Your task to perform on an android device: Add "razer blackwidow" to the cart on costco.com, then select checkout. Image 0: 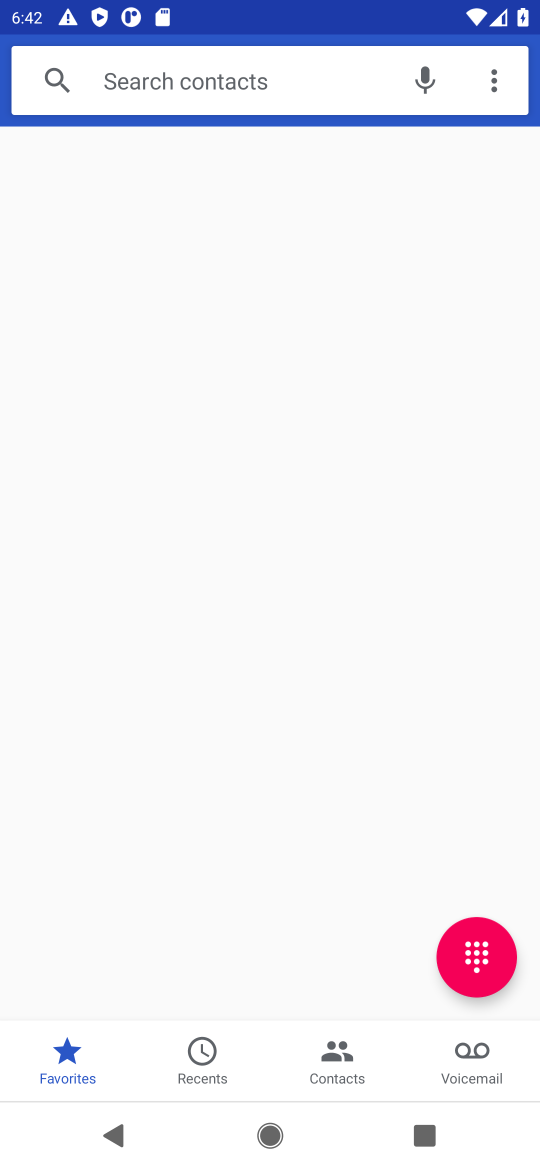
Step 0: press home button
Your task to perform on an android device: Add "razer blackwidow" to the cart on costco.com, then select checkout. Image 1: 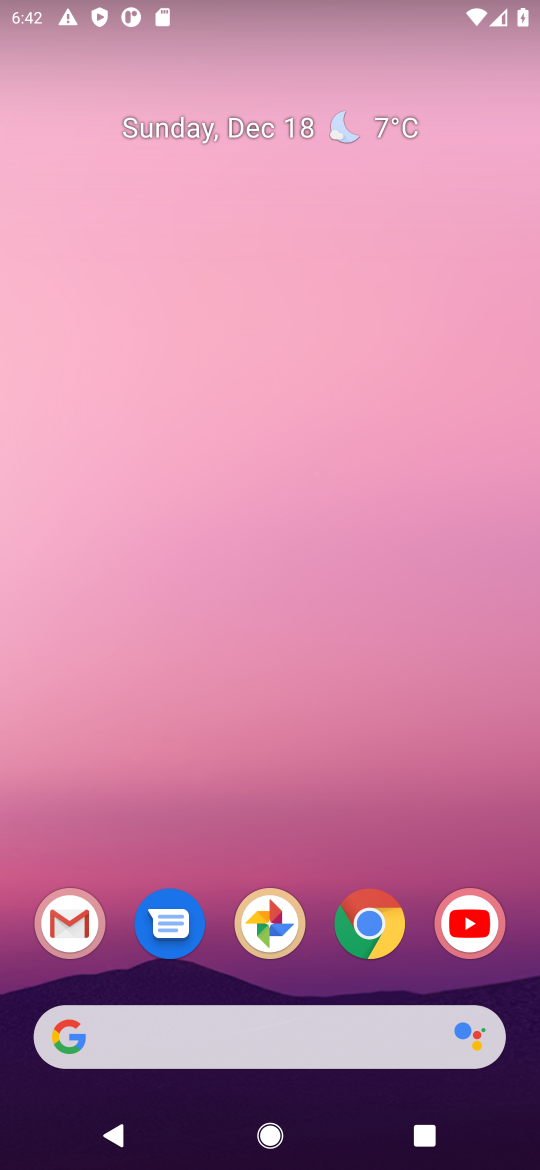
Step 1: click (112, 1036)
Your task to perform on an android device: Add "razer blackwidow" to the cart on costco.com, then select checkout. Image 2: 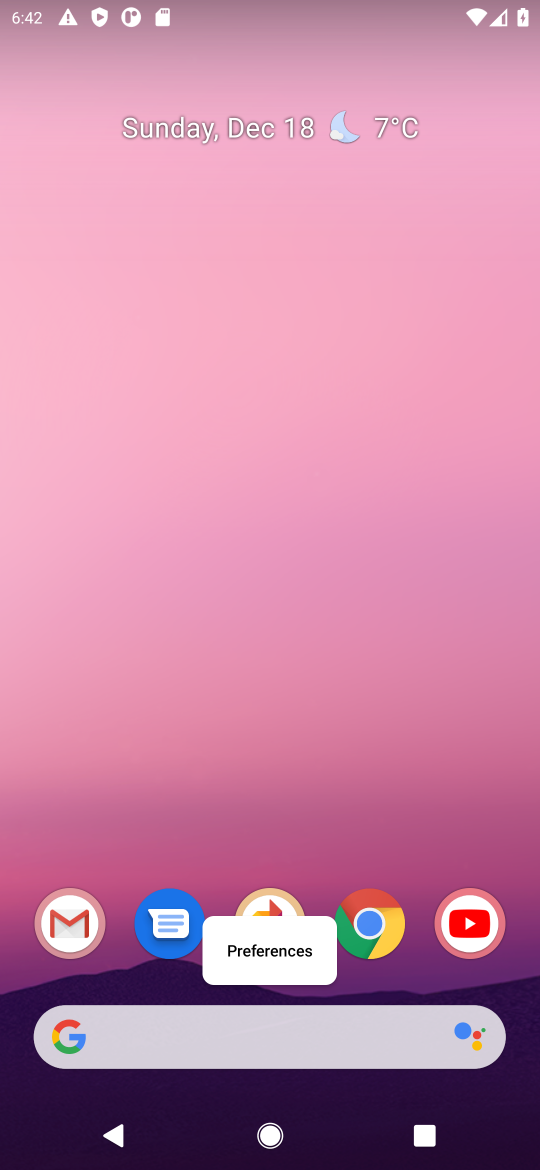
Step 2: click (90, 1035)
Your task to perform on an android device: Add "razer blackwidow" to the cart on costco.com, then select checkout. Image 3: 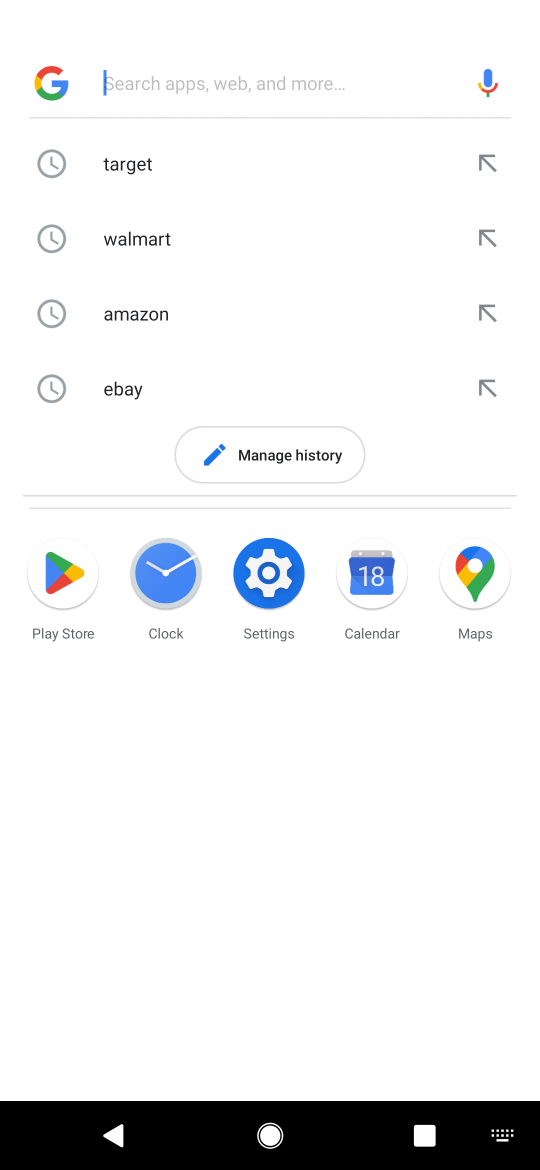
Step 3: type "costco.com"
Your task to perform on an android device: Add "razer blackwidow" to the cart on costco.com, then select checkout. Image 4: 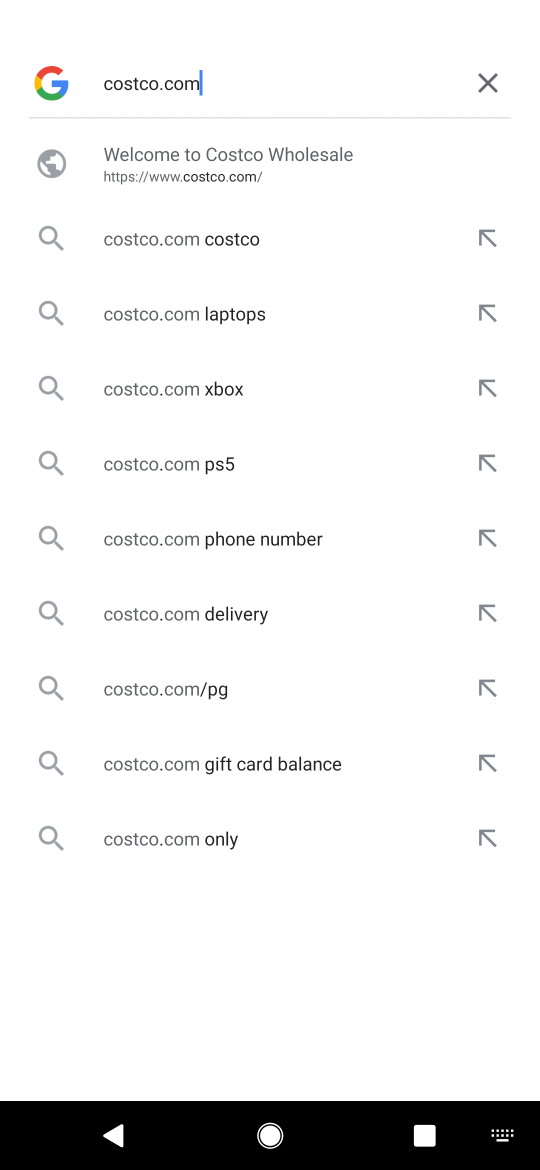
Step 4: press enter
Your task to perform on an android device: Add "razer blackwidow" to the cart on costco.com, then select checkout. Image 5: 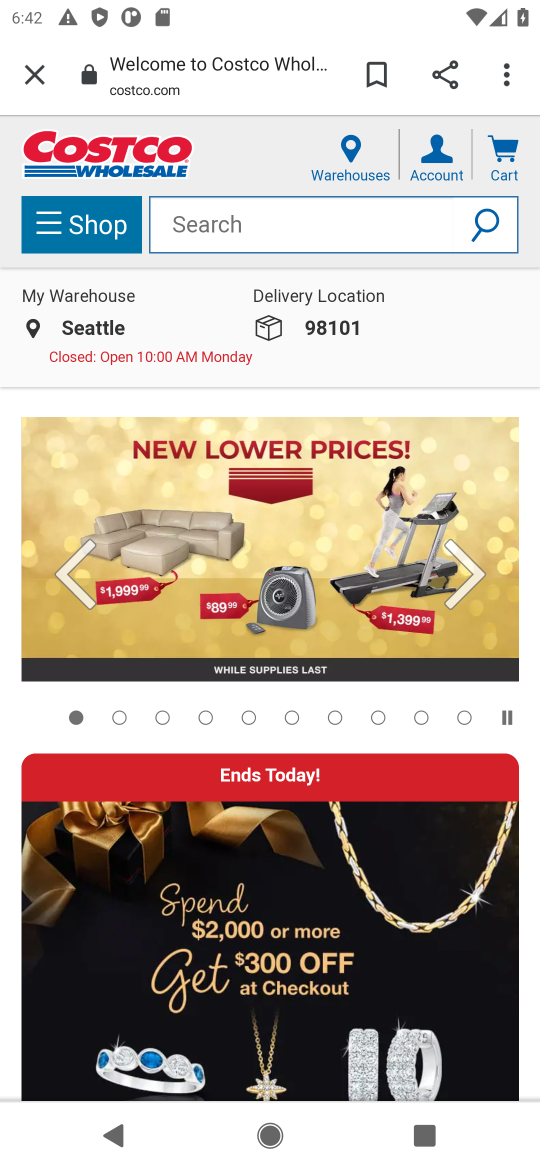
Step 5: click (237, 221)
Your task to perform on an android device: Add "razer blackwidow" to the cart on costco.com, then select checkout. Image 6: 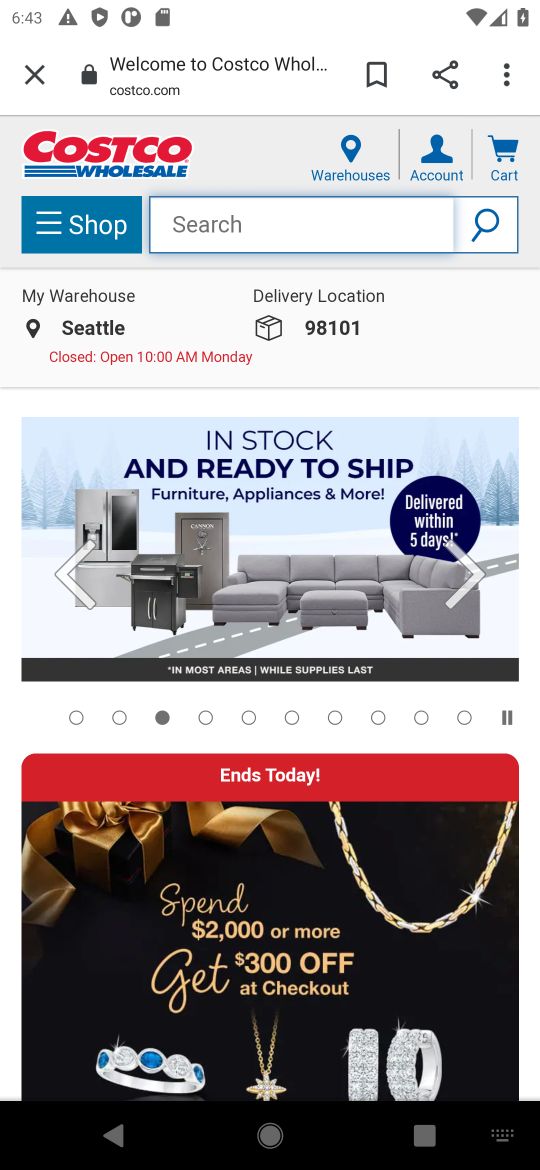
Step 6: press enter
Your task to perform on an android device: Add "razer blackwidow" to the cart on costco.com, then select checkout. Image 7: 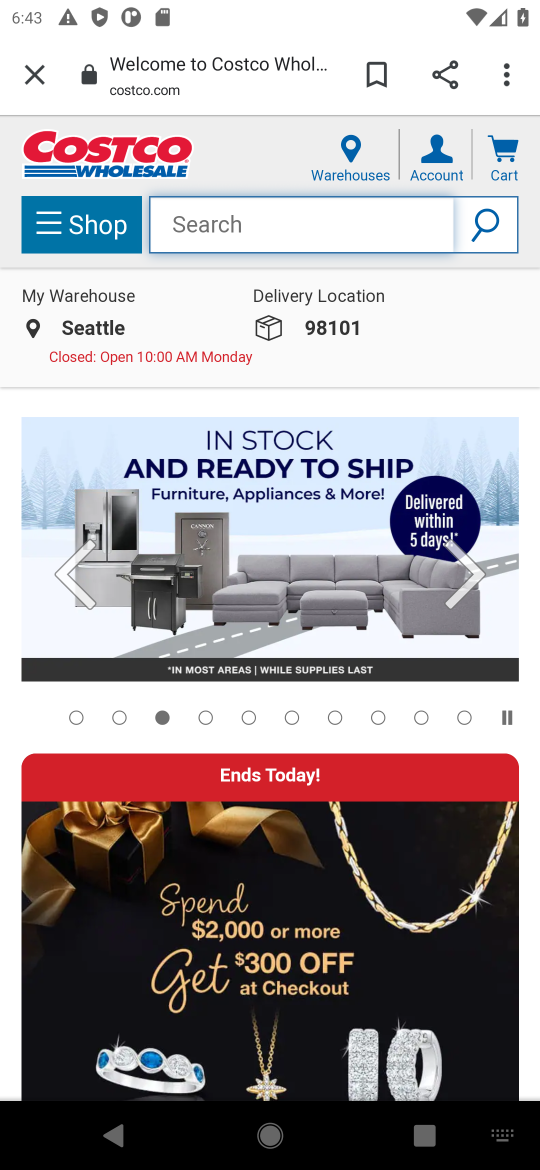
Step 7: type "razer blackwidow"
Your task to perform on an android device: Add "razer blackwidow" to the cart on costco.com, then select checkout. Image 8: 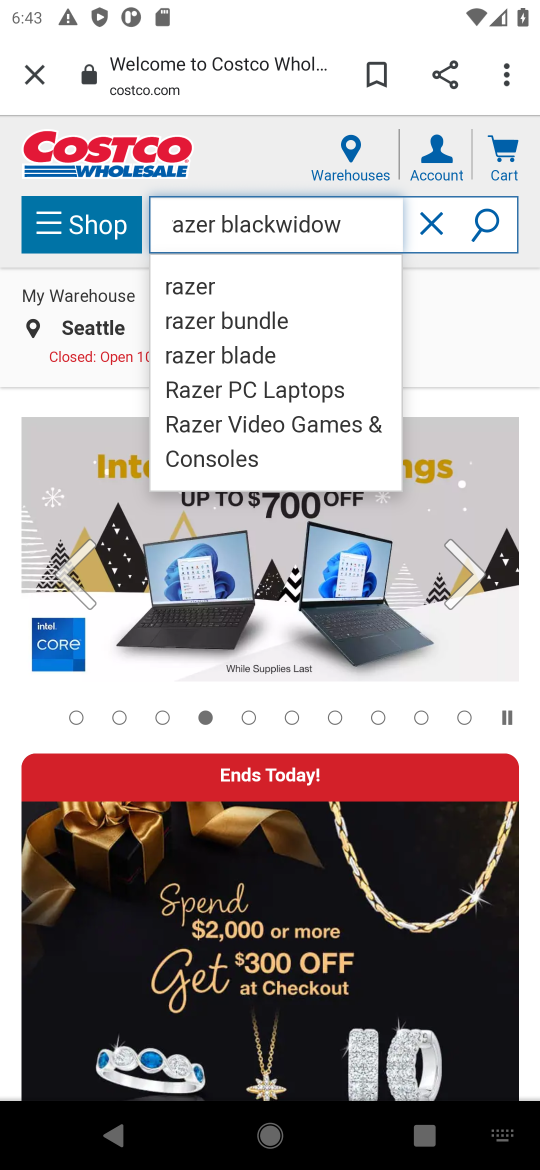
Step 8: press enter
Your task to perform on an android device: Add "razer blackwidow" to the cart on costco.com, then select checkout. Image 9: 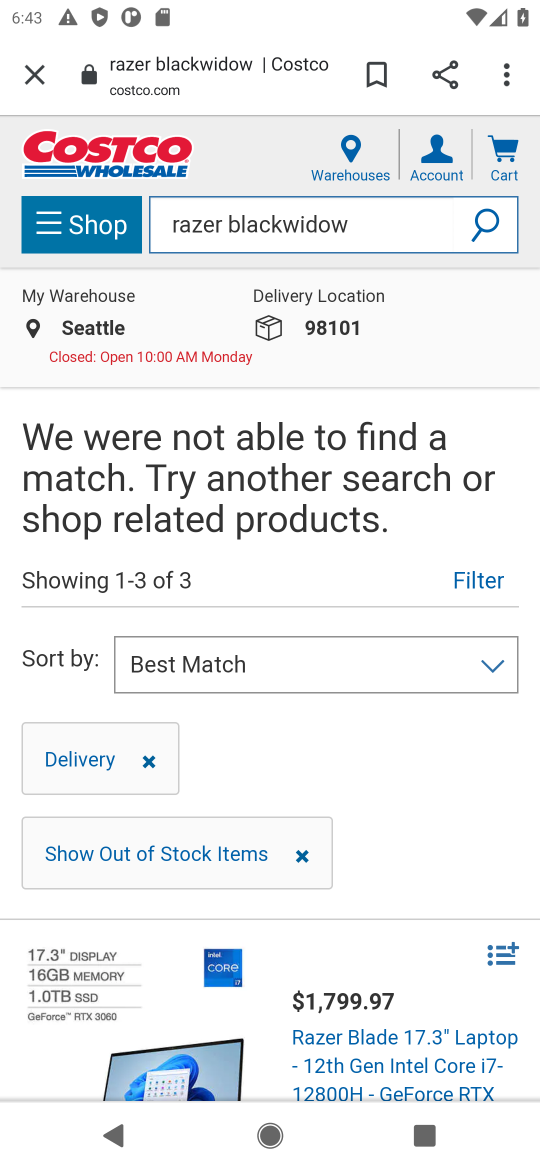
Step 9: task complete